Your task to perform on an android device: Do I have any events today? Image 0: 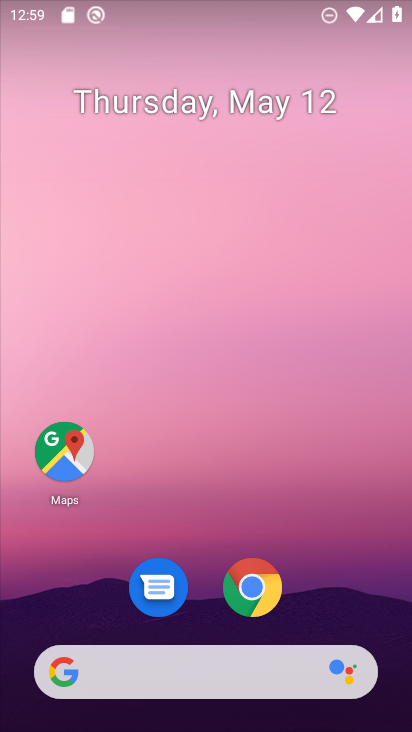
Step 0: drag from (326, 594) to (254, 42)
Your task to perform on an android device: Do I have any events today? Image 1: 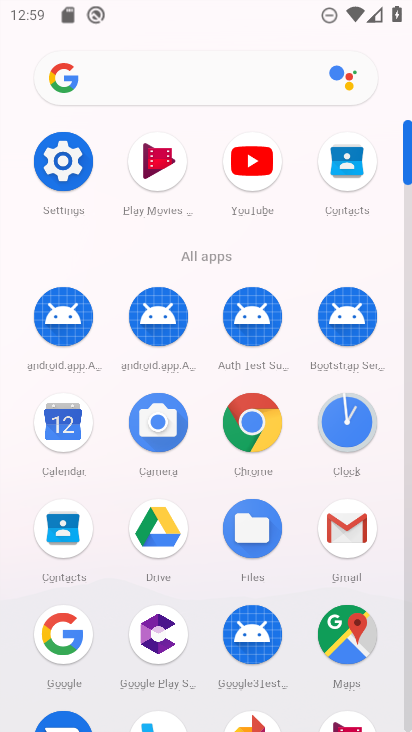
Step 1: click (67, 426)
Your task to perform on an android device: Do I have any events today? Image 2: 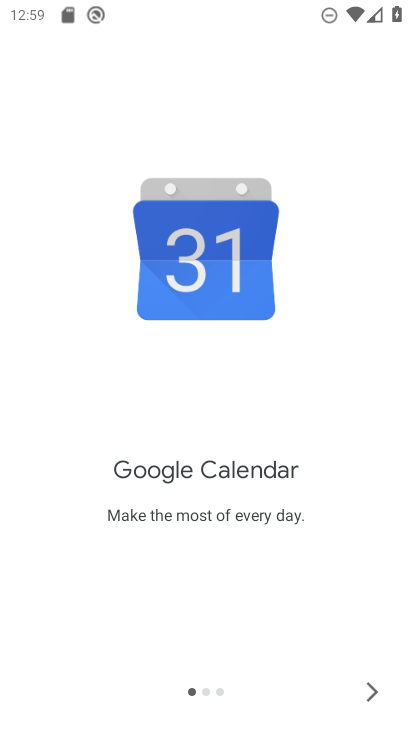
Step 2: click (375, 692)
Your task to perform on an android device: Do I have any events today? Image 3: 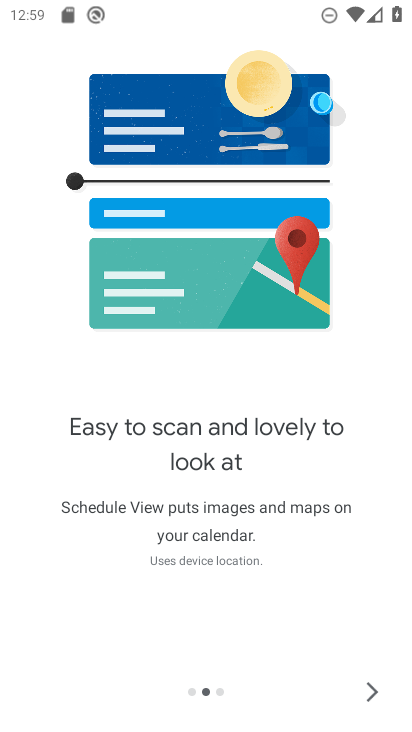
Step 3: click (372, 689)
Your task to perform on an android device: Do I have any events today? Image 4: 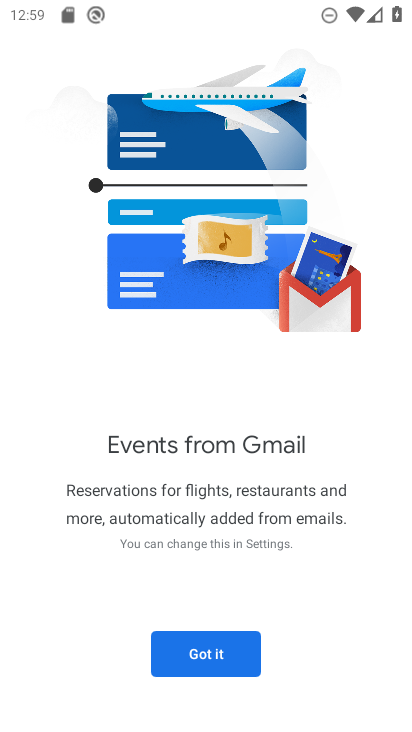
Step 4: click (226, 652)
Your task to perform on an android device: Do I have any events today? Image 5: 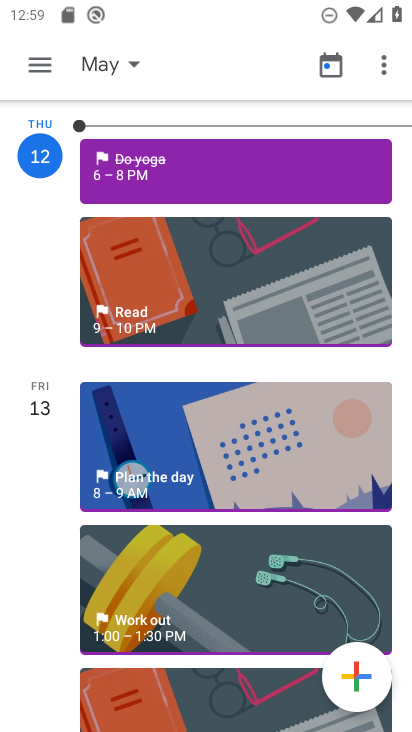
Step 5: click (136, 65)
Your task to perform on an android device: Do I have any events today? Image 6: 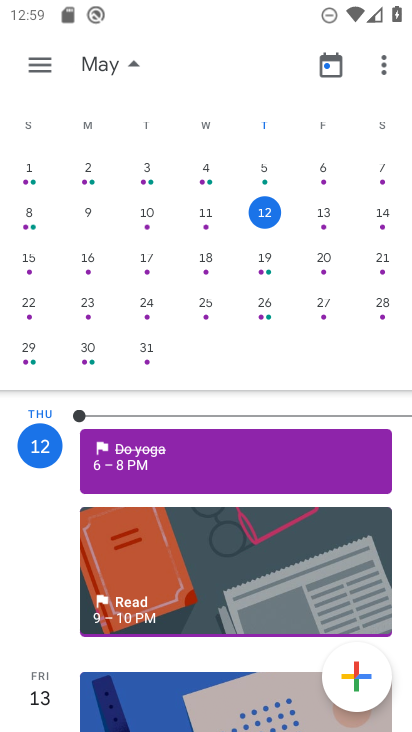
Step 6: click (197, 440)
Your task to perform on an android device: Do I have any events today? Image 7: 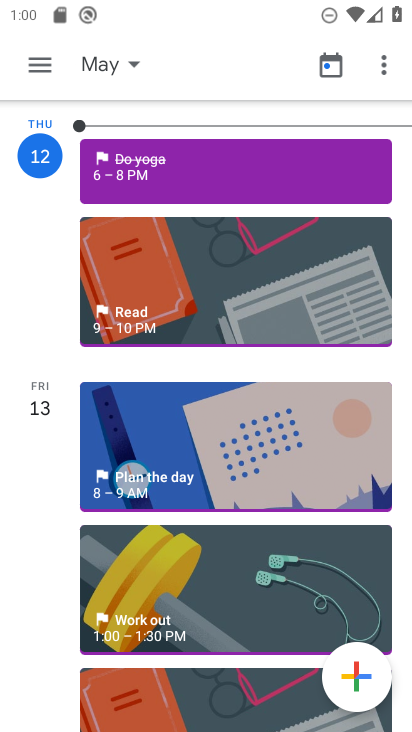
Step 7: task complete